Your task to perform on an android device: clear all cookies in the chrome app Image 0: 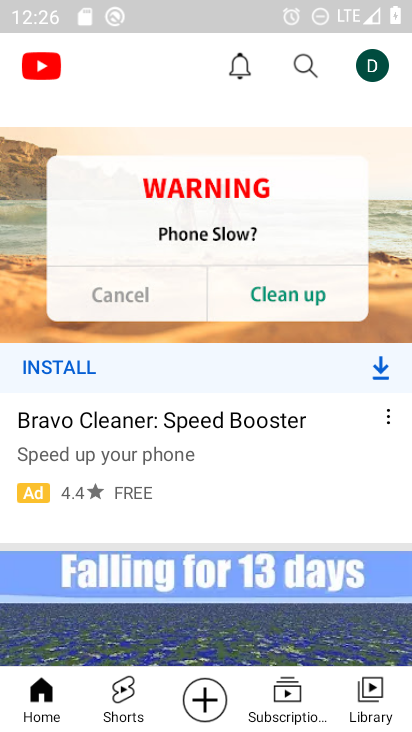
Step 0: press home button
Your task to perform on an android device: clear all cookies in the chrome app Image 1: 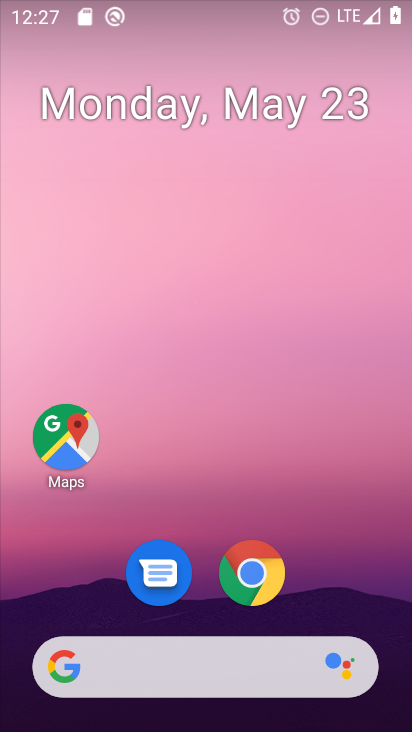
Step 1: click (247, 569)
Your task to perform on an android device: clear all cookies in the chrome app Image 2: 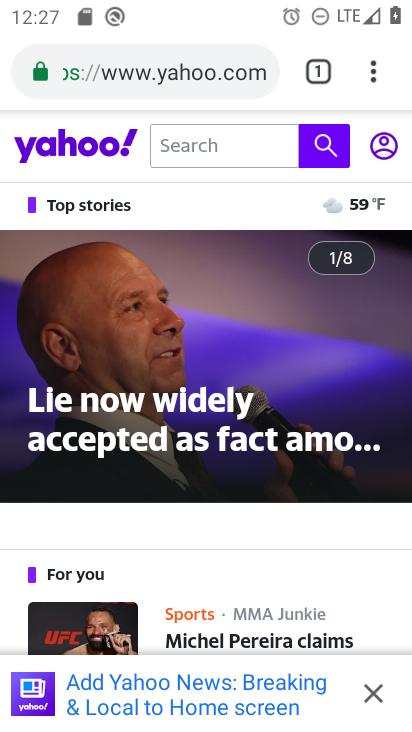
Step 2: click (364, 83)
Your task to perform on an android device: clear all cookies in the chrome app Image 3: 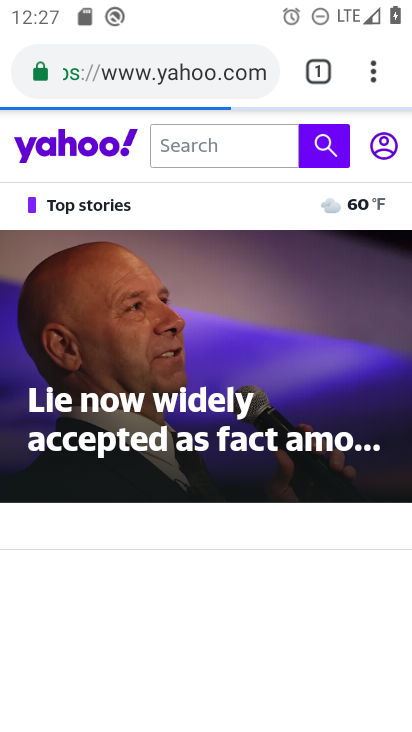
Step 3: click (364, 83)
Your task to perform on an android device: clear all cookies in the chrome app Image 4: 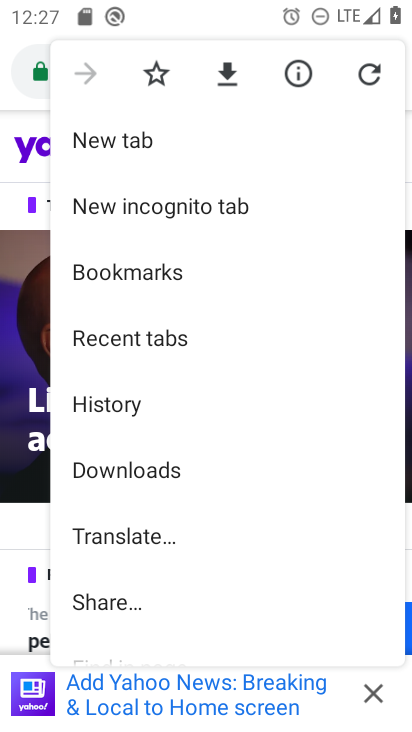
Step 4: drag from (194, 572) to (185, 443)
Your task to perform on an android device: clear all cookies in the chrome app Image 5: 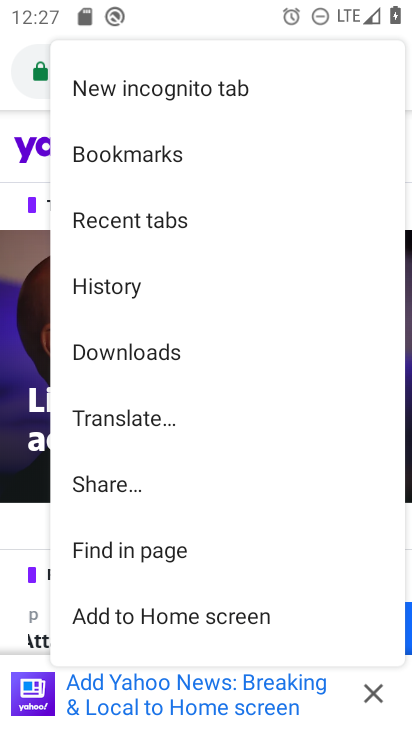
Step 5: click (161, 291)
Your task to perform on an android device: clear all cookies in the chrome app Image 6: 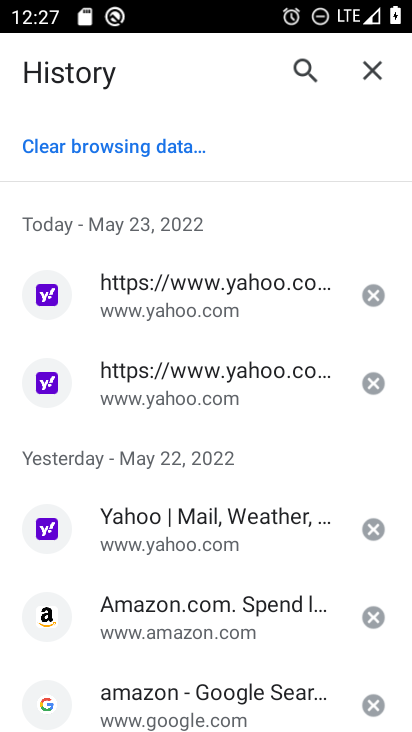
Step 6: click (135, 147)
Your task to perform on an android device: clear all cookies in the chrome app Image 7: 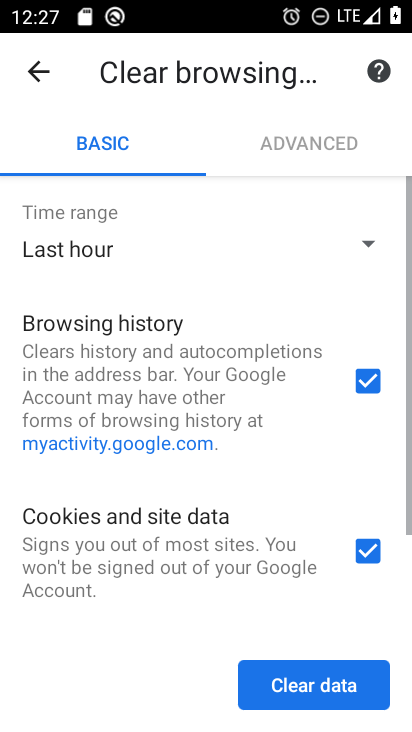
Step 7: click (244, 412)
Your task to perform on an android device: clear all cookies in the chrome app Image 8: 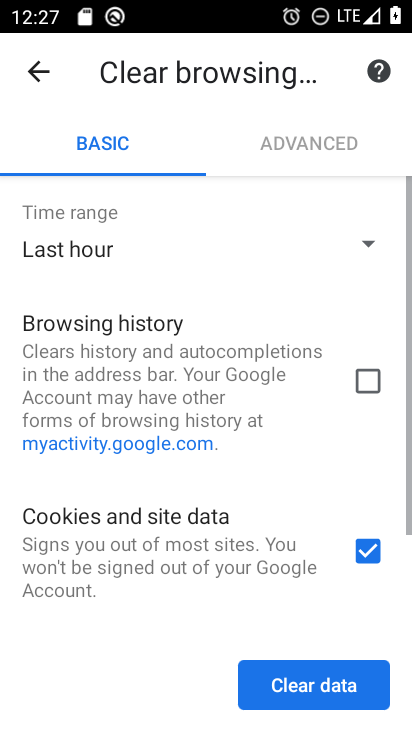
Step 8: drag from (232, 491) to (249, 290)
Your task to perform on an android device: clear all cookies in the chrome app Image 9: 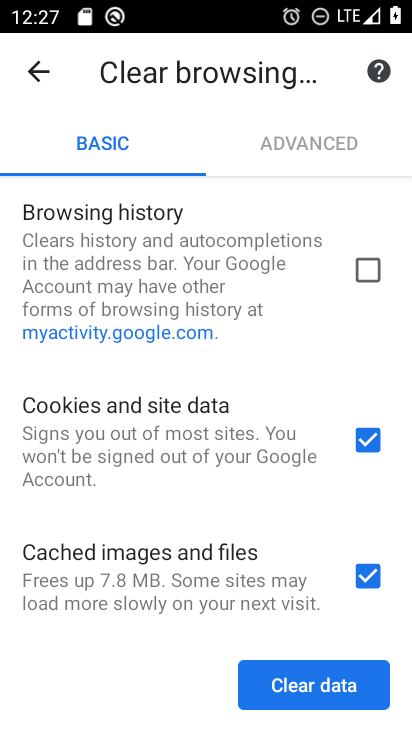
Step 9: click (304, 575)
Your task to perform on an android device: clear all cookies in the chrome app Image 10: 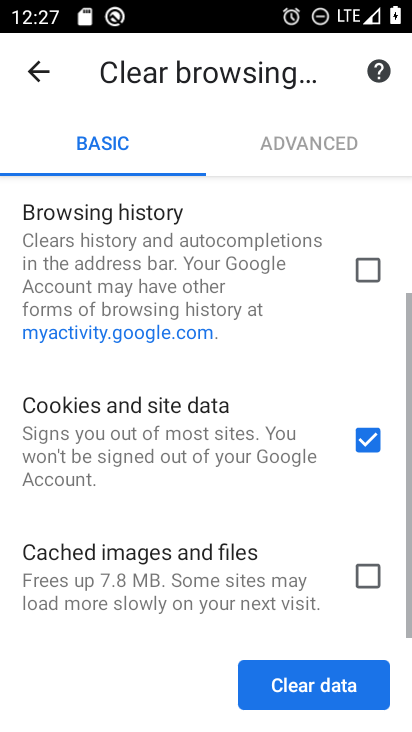
Step 10: click (322, 669)
Your task to perform on an android device: clear all cookies in the chrome app Image 11: 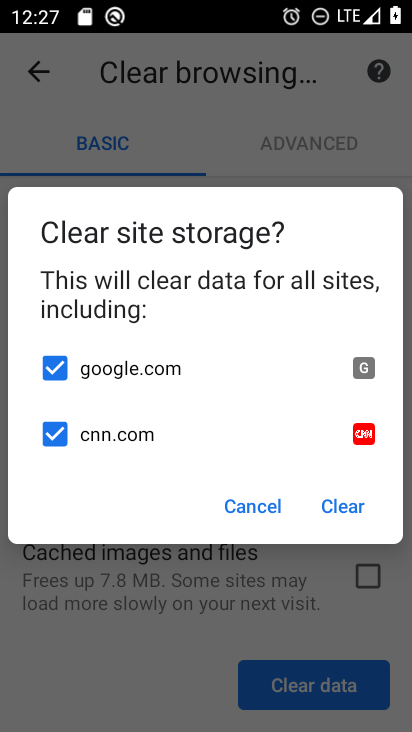
Step 11: click (329, 503)
Your task to perform on an android device: clear all cookies in the chrome app Image 12: 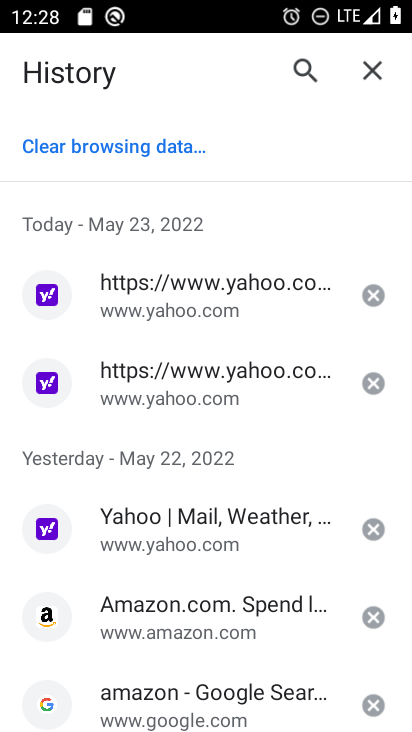
Step 12: task complete